Your task to perform on an android device: Set the phone to "Do not disturb". Image 0: 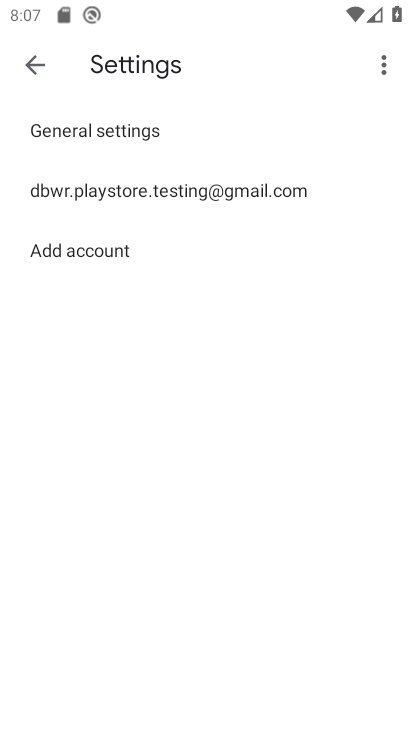
Step 0: press back button
Your task to perform on an android device: Set the phone to "Do not disturb". Image 1: 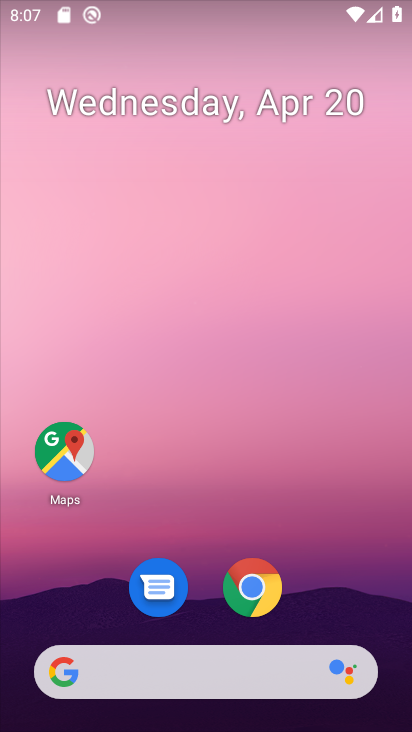
Step 1: press back button
Your task to perform on an android device: Set the phone to "Do not disturb". Image 2: 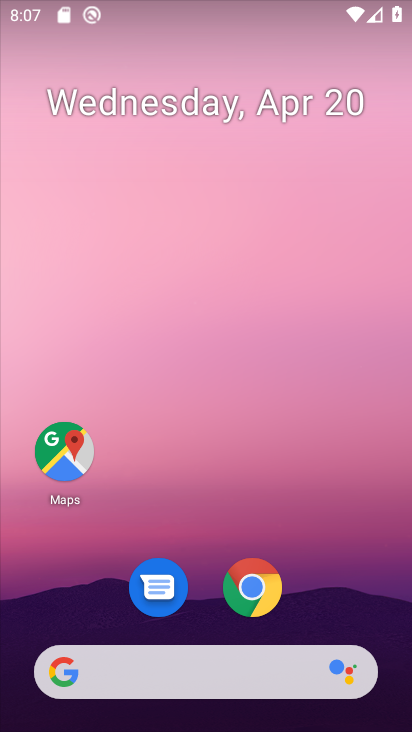
Step 2: drag from (351, 601) to (302, 168)
Your task to perform on an android device: Set the phone to "Do not disturb". Image 3: 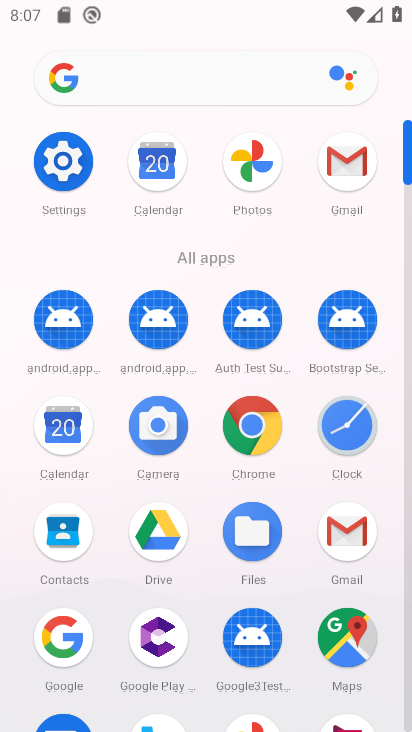
Step 3: click (55, 155)
Your task to perform on an android device: Set the phone to "Do not disturb". Image 4: 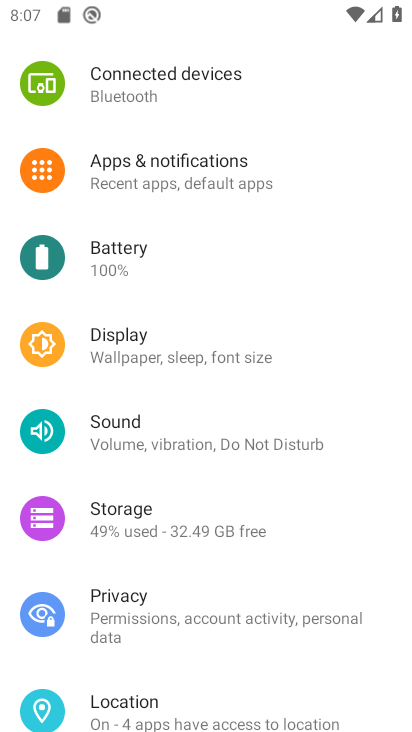
Step 4: drag from (263, 561) to (226, 380)
Your task to perform on an android device: Set the phone to "Do not disturb". Image 5: 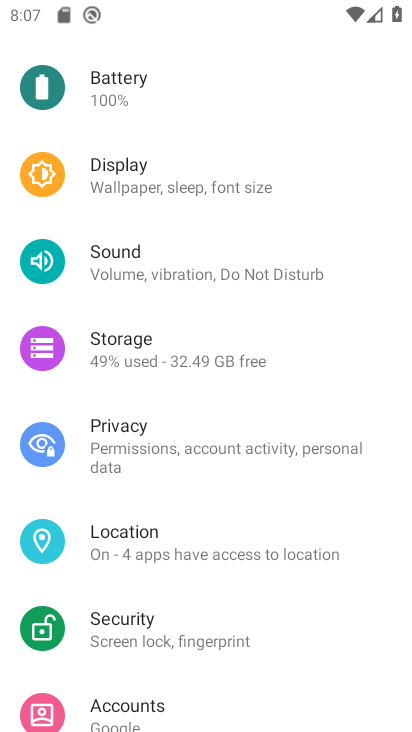
Step 5: drag from (235, 608) to (165, 269)
Your task to perform on an android device: Set the phone to "Do not disturb". Image 6: 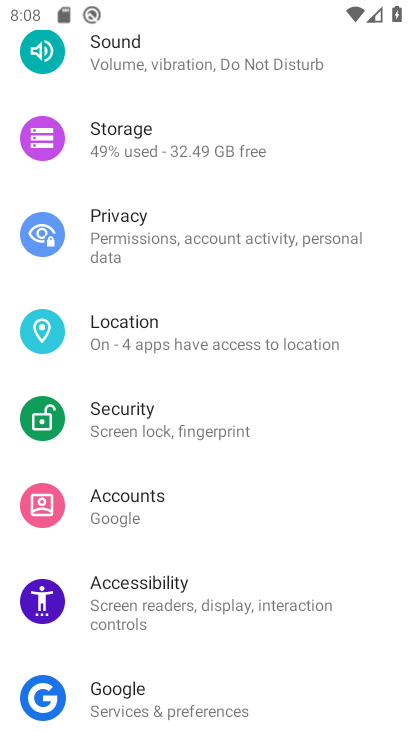
Step 6: drag from (198, 256) to (217, 440)
Your task to perform on an android device: Set the phone to "Do not disturb". Image 7: 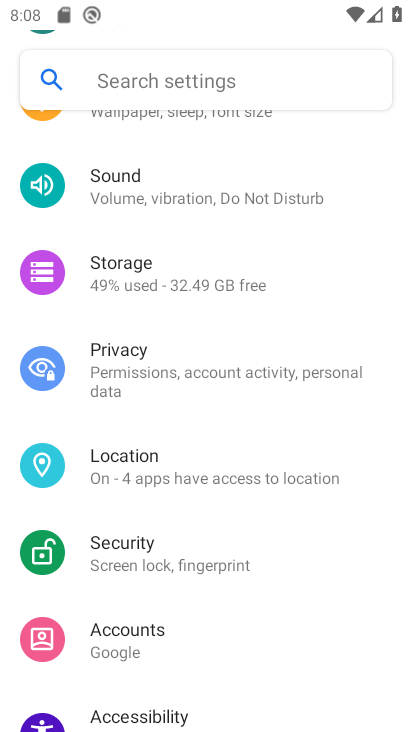
Step 7: click (249, 176)
Your task to perform on an android device: Set the phone to "Do not disturb". Image 8: 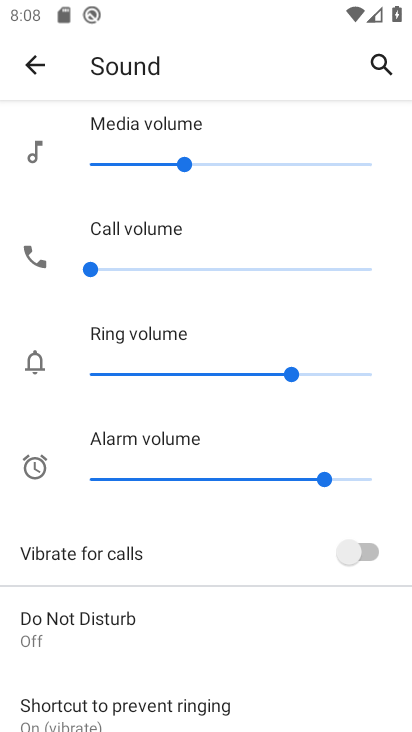
Step 8: click (281, 636)
Your task to perform on an android device: Set the phone to "Do not disturb". Image 9: 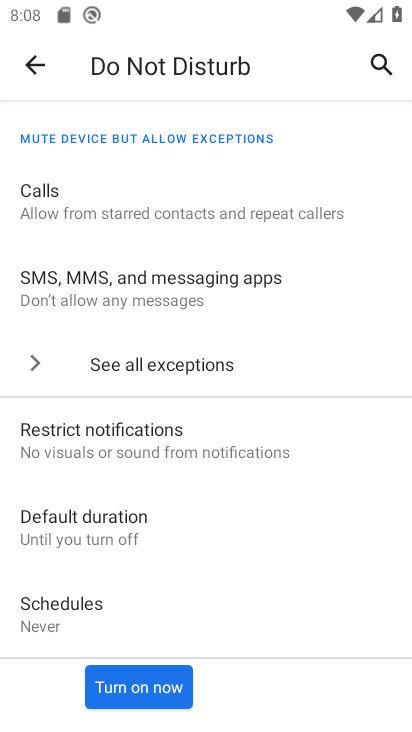
Step 9: click (123, 694)
Your task to perform on an android device: Set the phone to "Do not disturb". Image 10: 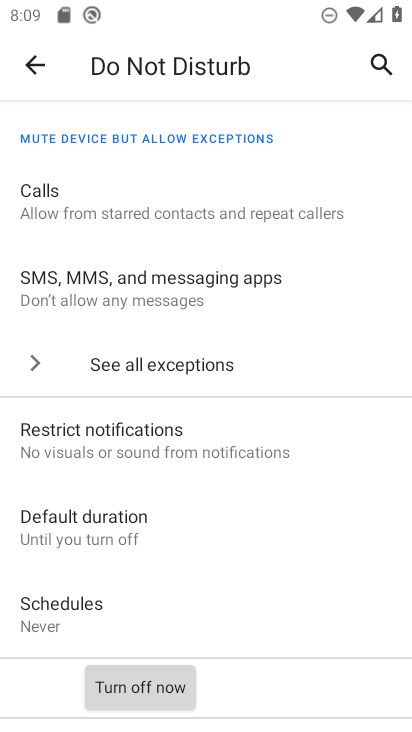
Step 10: task complete